Your task to perform on an android device: open a new tab in the chrome app Image 0: 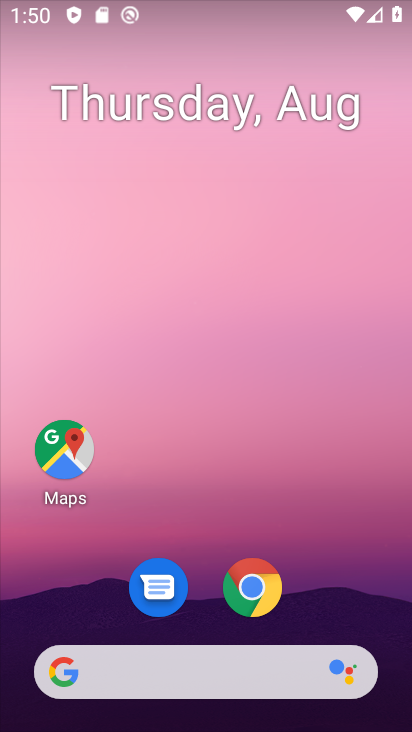
Step 0: click (254, 586)
Your task to perform on an android device: open a new tab in the chrome app Image 1: 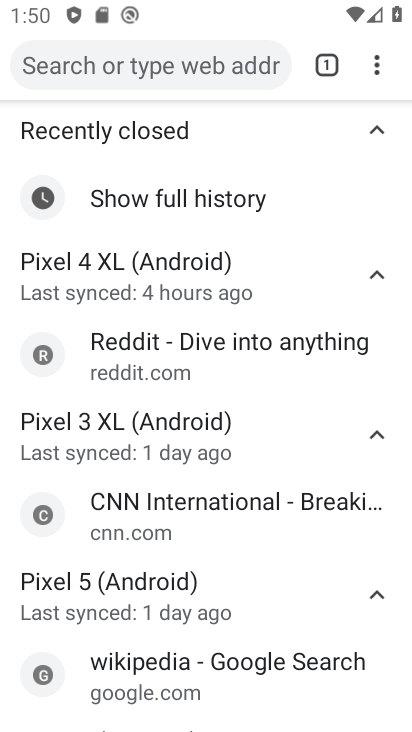
Step 1: click (375, 67)
Your task to perform on an android device: open a new tab in the chrome app Image 2: 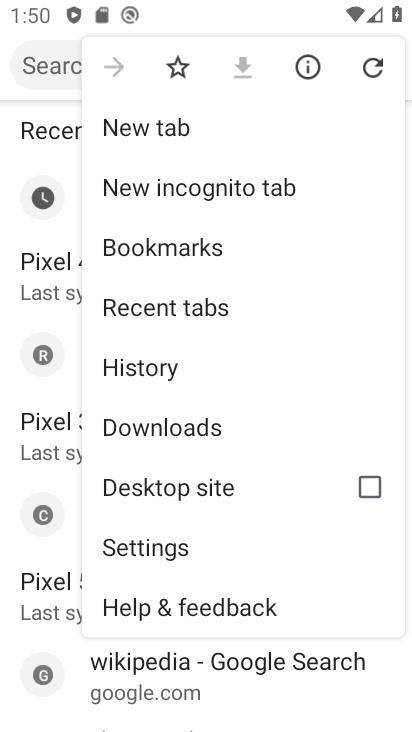
Step 2: click (149, 127)
Your task to perform on an android device: open a new tab in the chrome app Image 3: 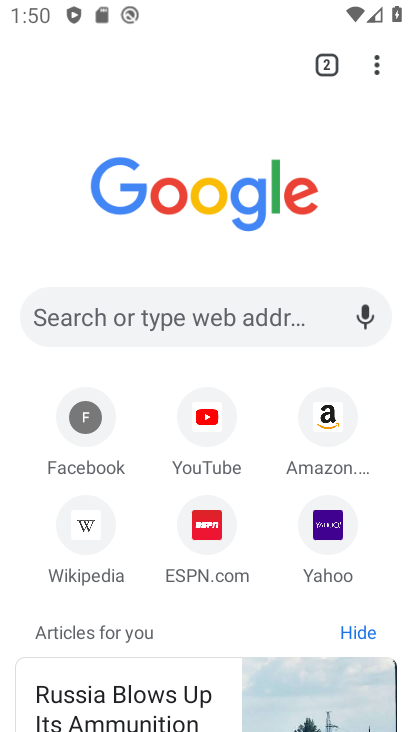
Step 3: task complete